Your task to perform on an android device: turn off notifications settings in the gmail app Image 0: 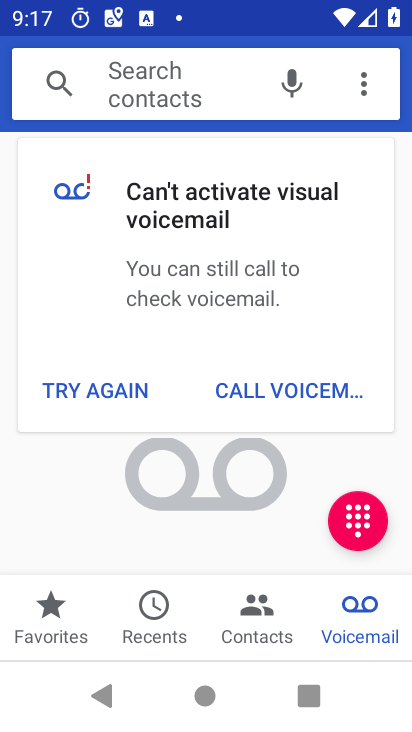
Step 0: press home button
Your task to perform on an android device: turn off notifications settings in the gmail app Image 1: 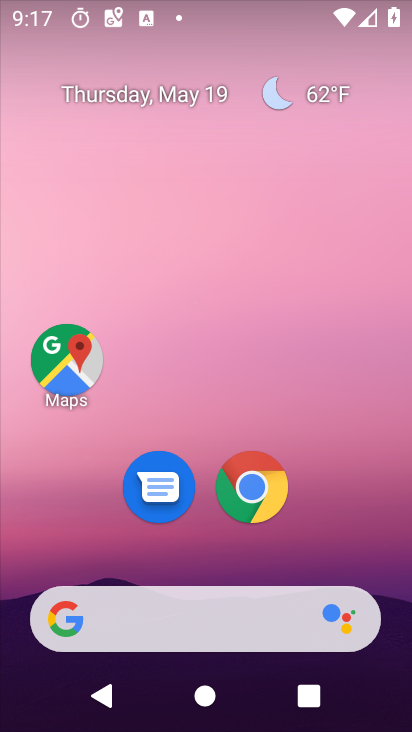
Step 1: drag from (344, 541) to (216, 227)
Your task to perform on an android device: turn off notifications settings in the gmail app Image 2: 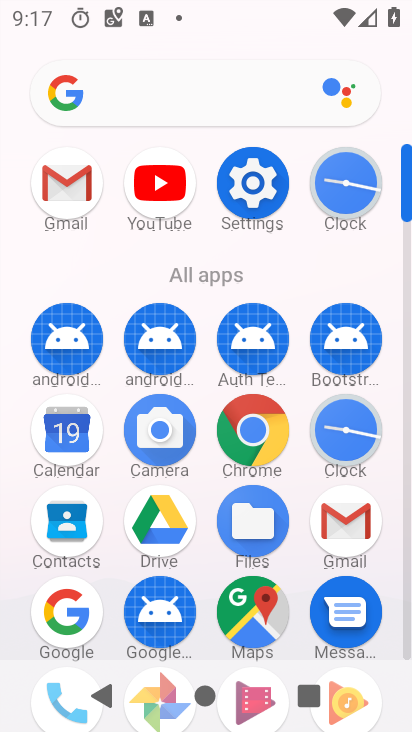
Step 2: click (248, 190)
Your task to perform on an android device: turn off notifications settings in the gmail app Image 3: 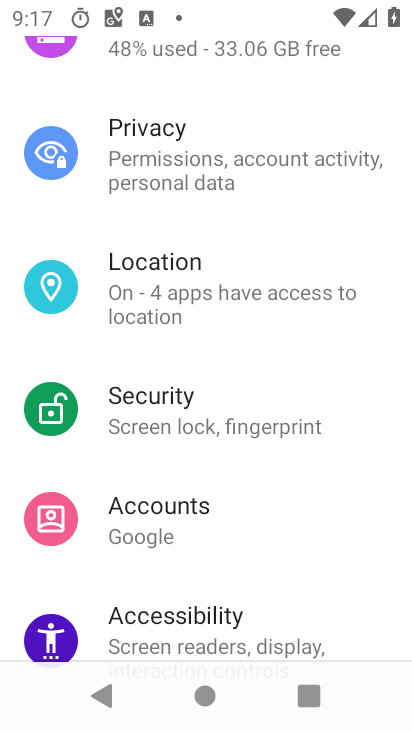
Step 3: press home button
Your task to perform on an android device: turn off notifications settings in the gmail app Image 4: 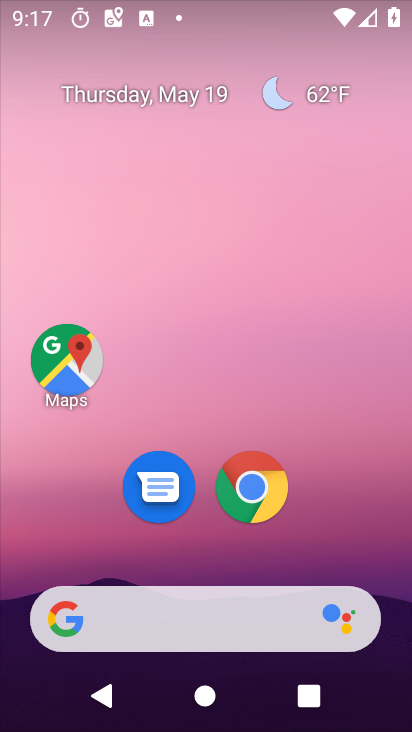
Step 4: drag from (309, 514) to (164, 16)
Your task to perform on an android device: turn off notifications settings in the gmail app Image 5: 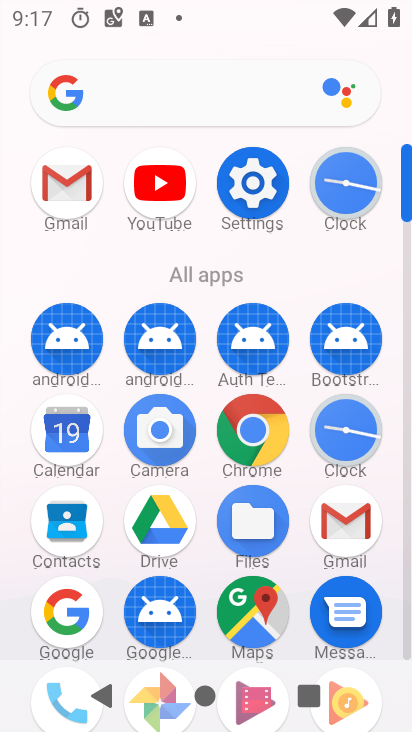
Step 5: click (238, 177)
Your task to perform on an android device: turn off notifications settings in the gmail app Image 6: 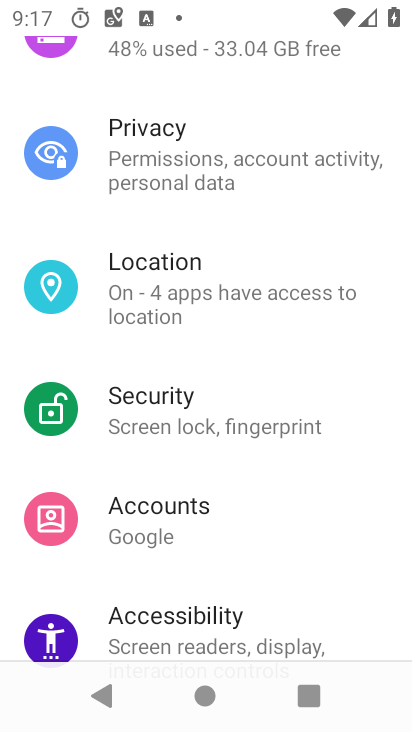
Step 6: drag from (229, 333) to (78, 731)
Your task to perform on an android device: turn off notifications settings in the gmail app Image 7: 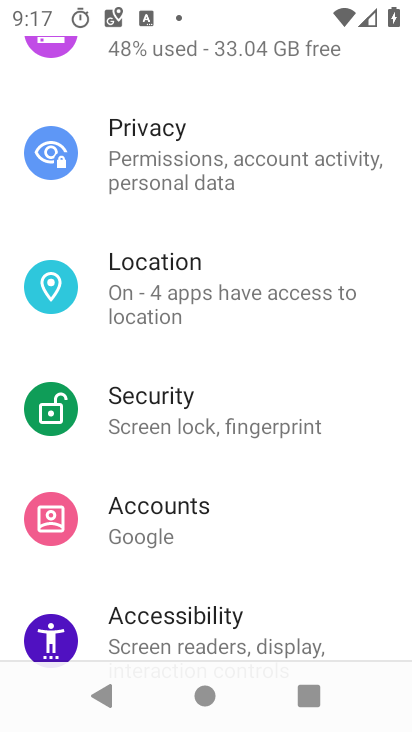
Step 7: drag from (177, 265) to (129, 707)
Your task to perform on an android device: turn off notifications settings in the gmail app Image 8: 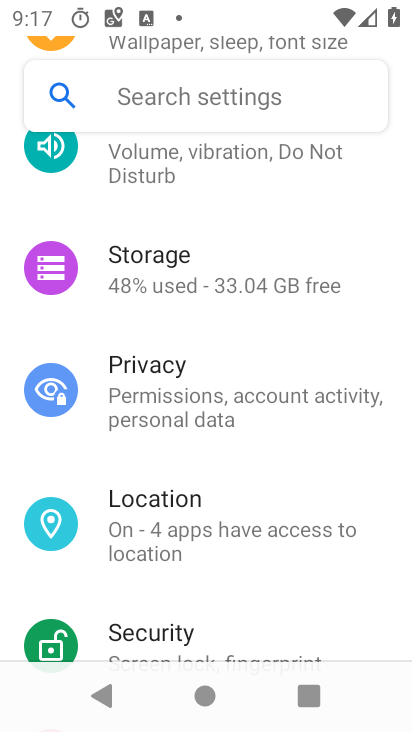
Step 8: drag from (275, 194) to (273, 558)
Your task to perform on an android device: turn off notifications settings in the gmail app Image 9: 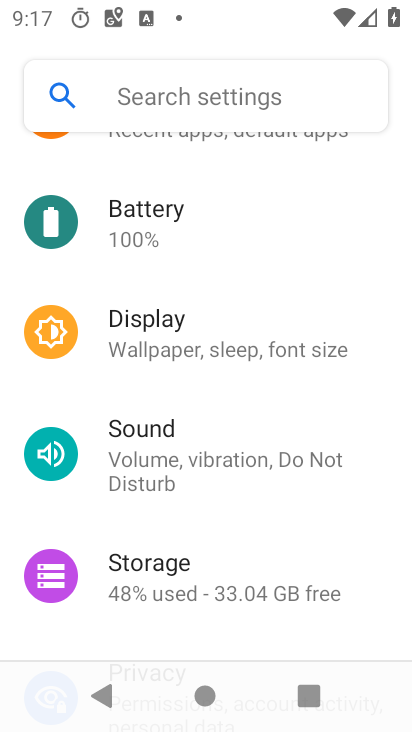
Step 9: drag from (237, 339) to (111, 680)
Your task to perform on an android device: turn off notifications settings in the gmail app Image 10: 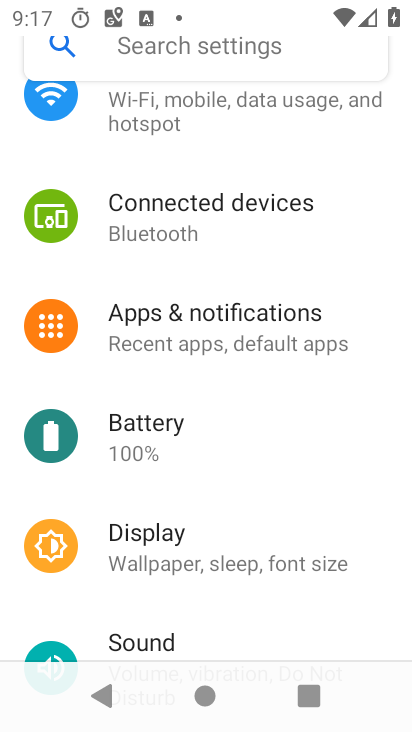
Step 10: click (217, 331)
Your task to perform on an android device: turn off notifications settings in the gmail app Image 11: 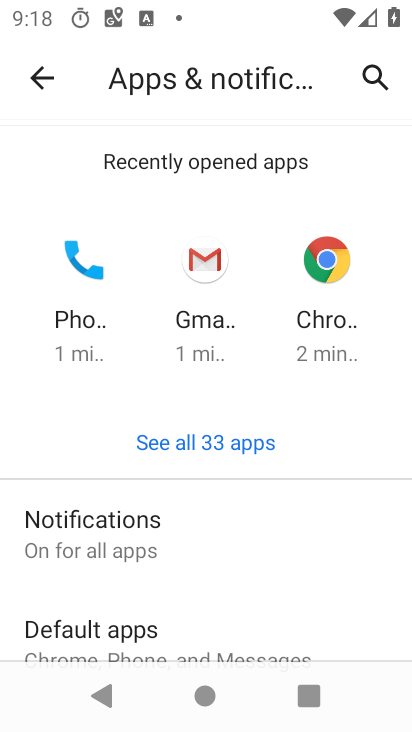
Step 11: click (97, 539)
Your task to perform on an android device: turn off notifications settings in the gmail app Image 12: 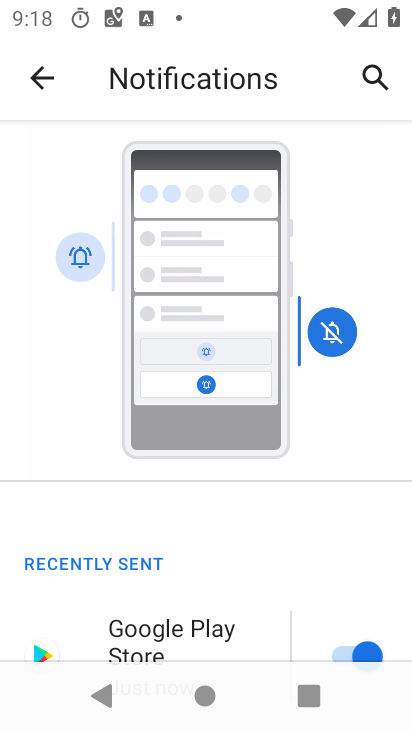
Step 12: drag from (169, 585) to (90, 250)
Your task to perform on an android device: turn off notifications settings in the gmail app Image 13: 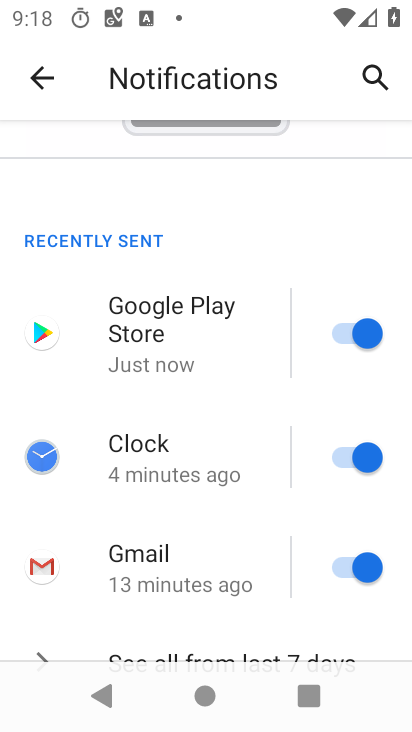
Step 13: drag from (139, 435) to (93, 99)
Your task to perform on an android device: turn off notifications settings in the gmail app Image 14: 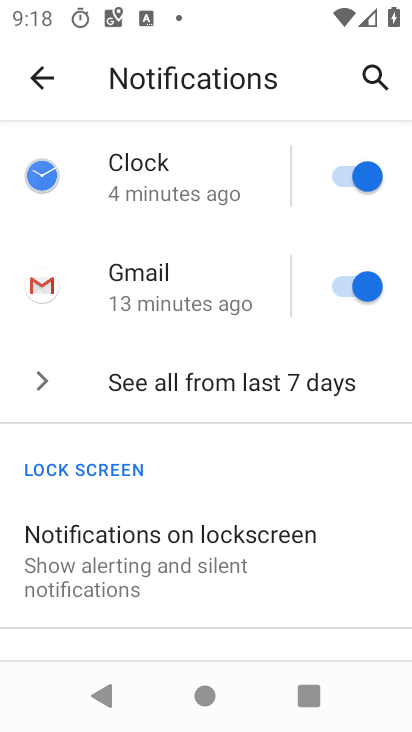
Step 14: click (363, 269)
Your task to perform on an android device: turn off notifications settings in the gmail app Image 15: 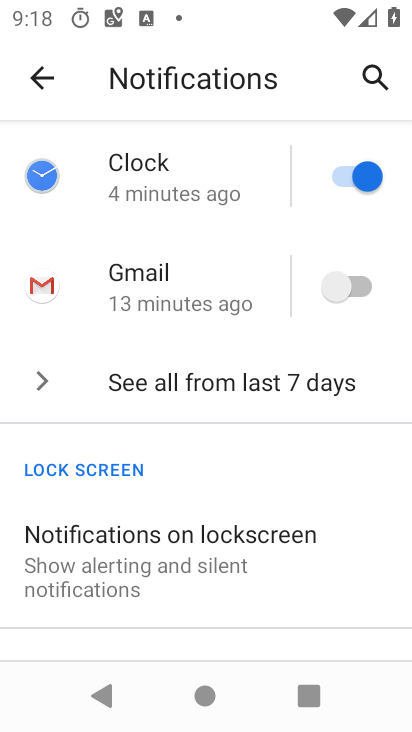
Step 15: task complete